Your task to perform on an android device: toggle translation in the chrome app Image 0: 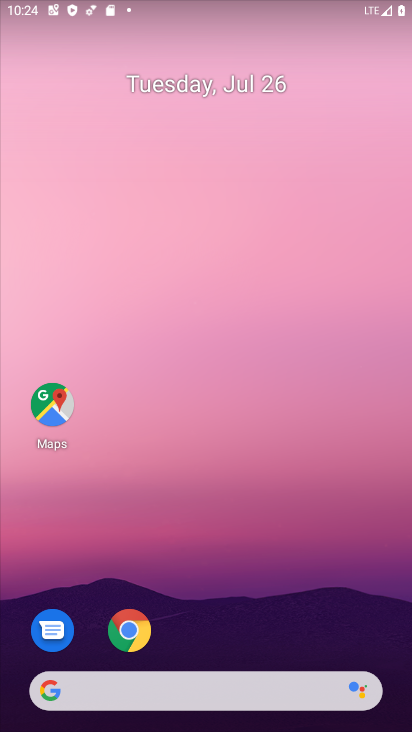
Step 0: click (137, 629)
Your task to perform on an android device: toggle translation in the chrome app Image 1: 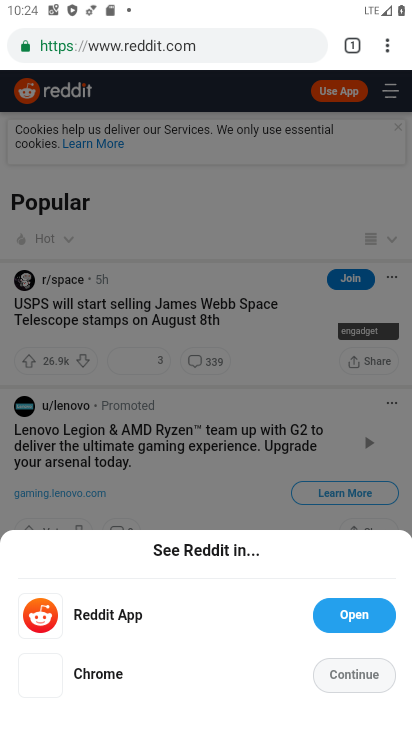
Step 1: click (391, 42)
Your task to perform on an android device: toggle translation in the chrome app Image 2: 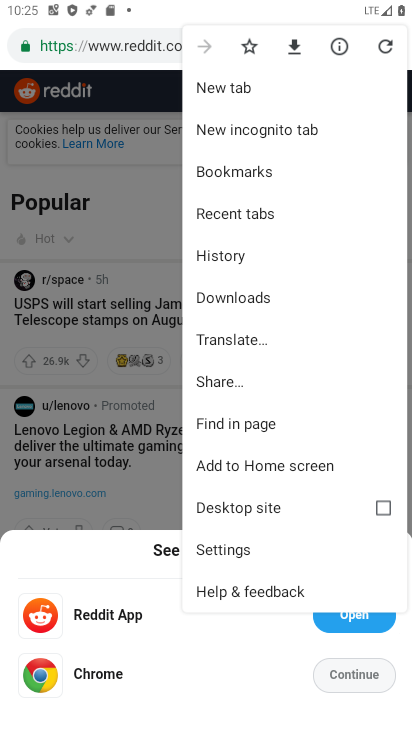
Step 2: click (219, 546)
Your task to perform on an android device: toggle translation in the chrome app Image 3: 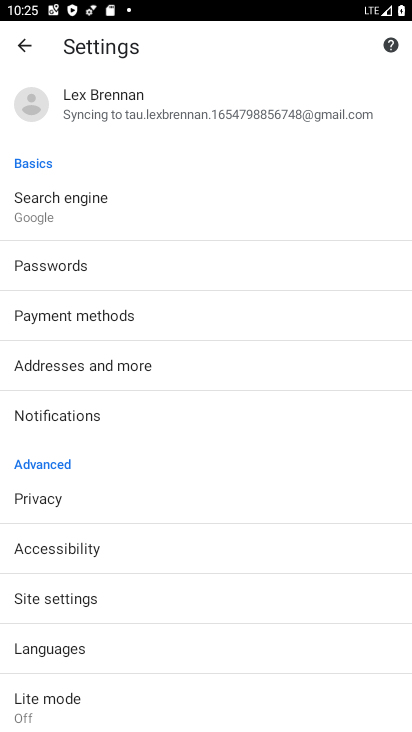
Step 3: click (51, 651)
Your task to perform on an android device: toggle translation in the chrome app Image 4: 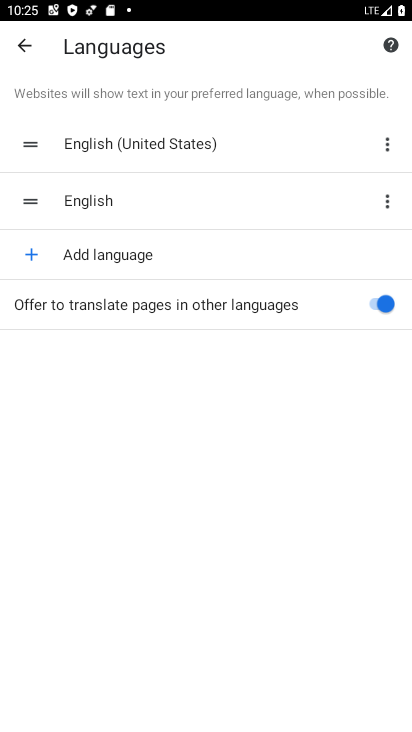
Step 4: click (367, 306)
Your task to perform on an android device: toggle translation in the chrome app Image 5: 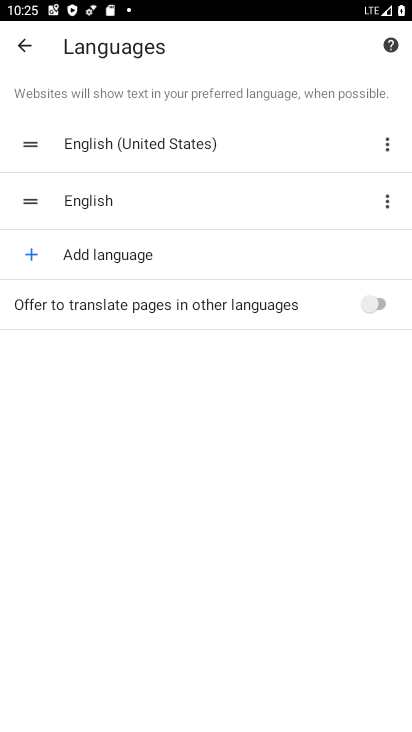
Step 5: task complete